Your task to perform on an android device: add a label to a message in the gmail app Image 0: 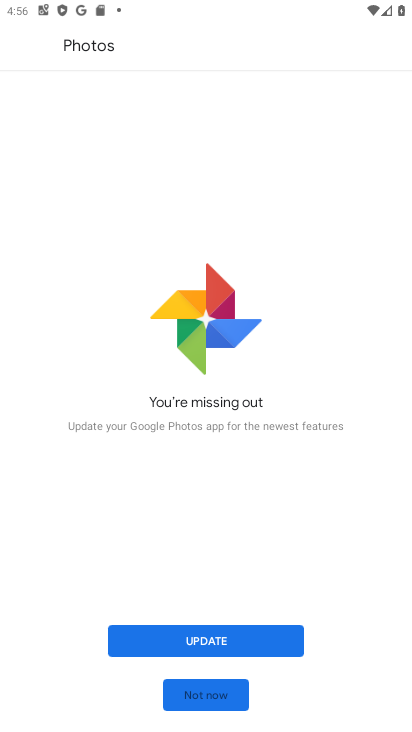
Step 0: press home button
Your task to perform on an android device: add a label to a message in the gmail app Image 1: 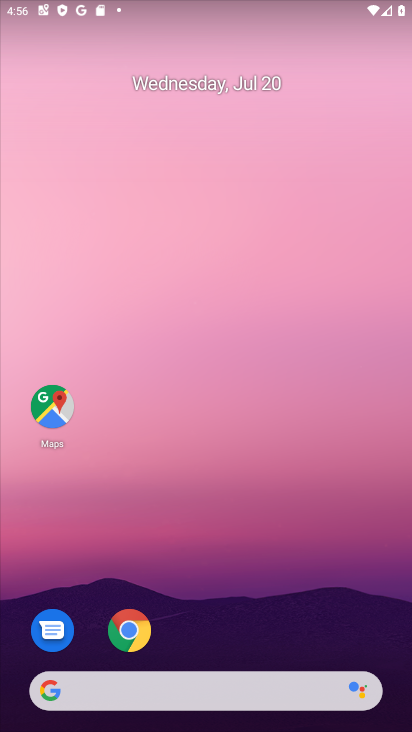
Step 1: drag from (206, 697) to (300, 231)
Your task to perform on an android device: add a label to a message in the gmail app Image 2: 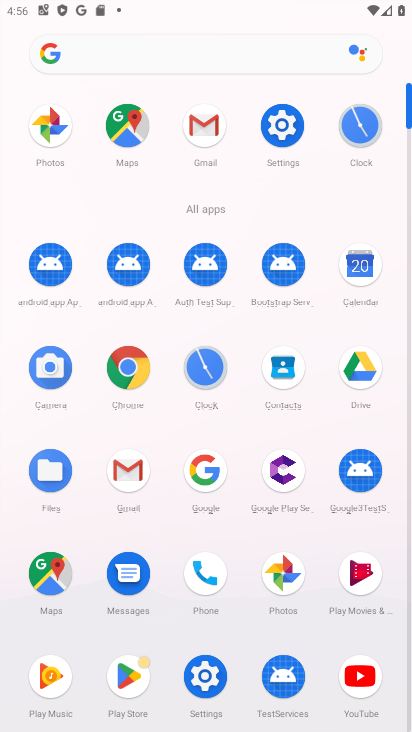
Step 2: click (201, 123)
Your task to perform on an android device: add a label to a message in the gmail app Image 3: 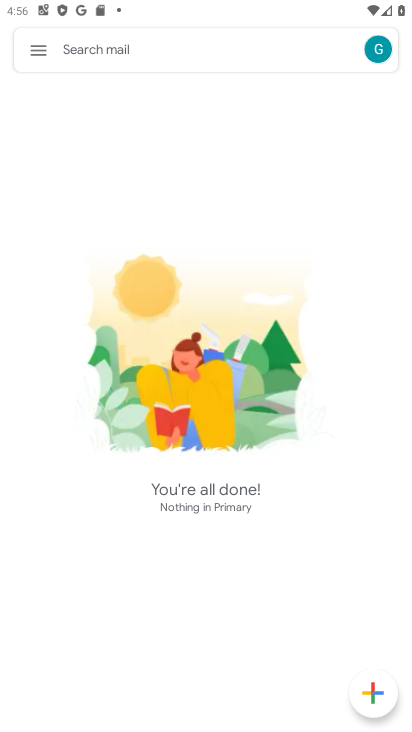
Step 3: click (37, 48)
Your task to perform on an android device: add a label to a message in the gmail app Image 4: 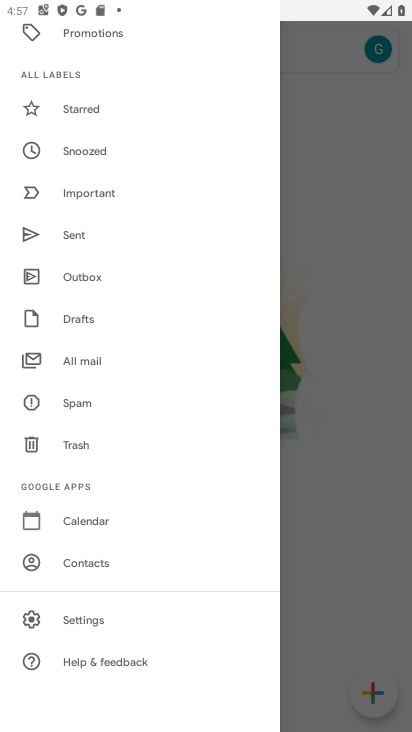
Step 4: click (86, 357)
Your task to perform on an android device: add a label to a message in the gmail app Image 5: 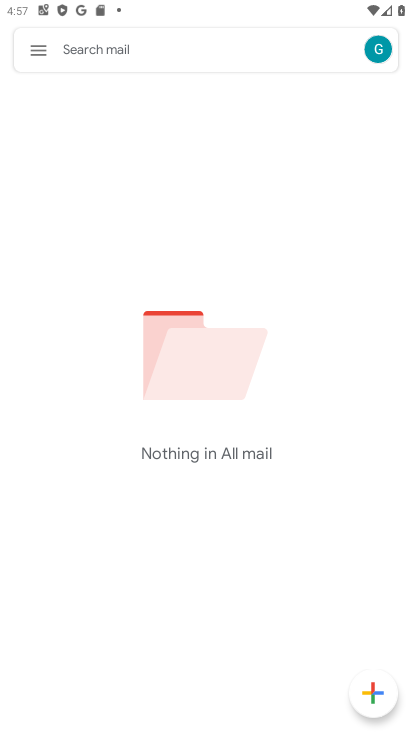
Step 5: click (31, 50)
Your task to perform on an android device: add a label to a message in the gmail app Image 6: 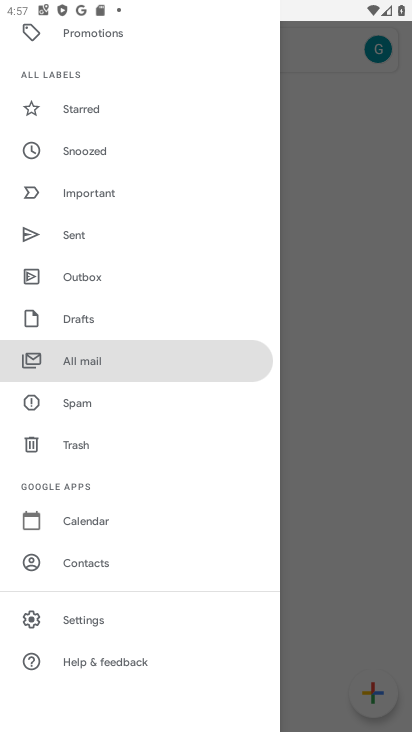
Step 6: click (105, 405)
Your task to perform on an android device: add a label to a message in the gmail app Image 7: 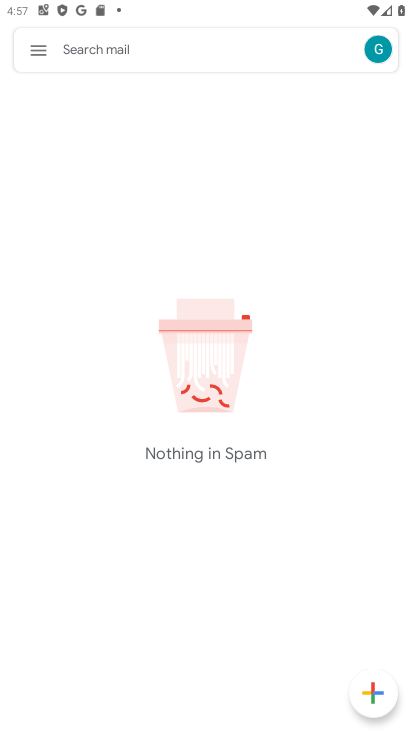
Step 7: click (37, 49)
Your task to perform on an android device: add a label to a message in the gmail app Image 8: 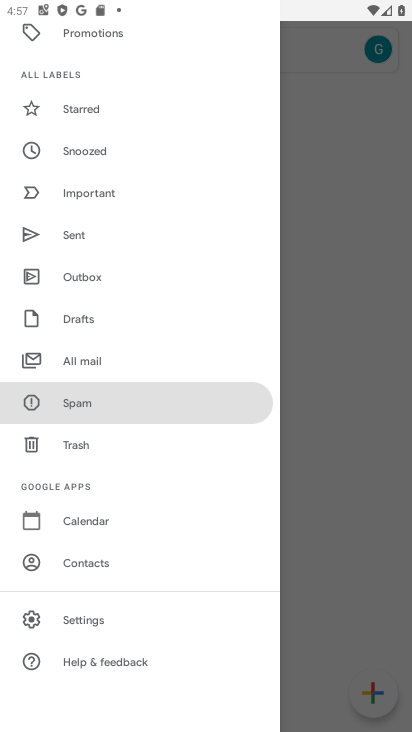
Step 8: click (91, 157)
Your task to perform on an android device: add a label to a message in the gmail app Image 9: 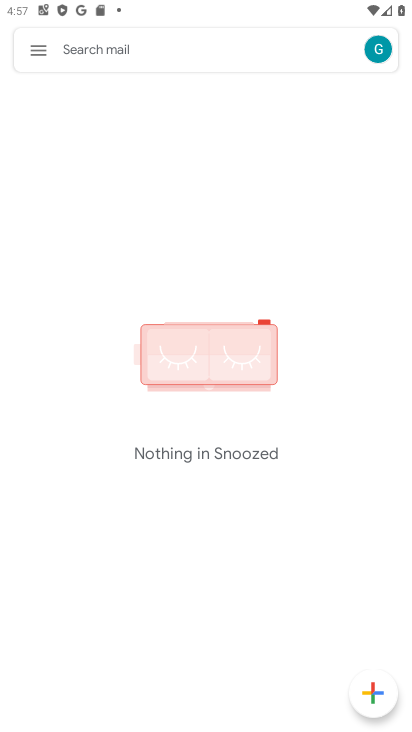
Step 9: click (39, 53)
Your task to perform on an android device: add a label to a message in the gmail app Image 10: 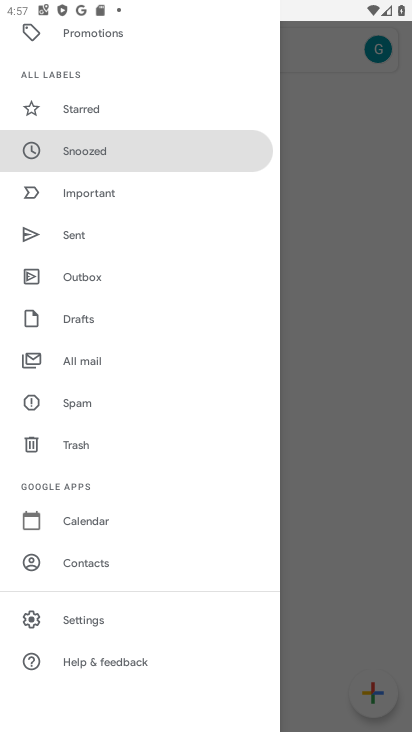
Step 10: click (90, 194)
Your task to perform on an android device: add a label to a message in the gmail app Image 11: 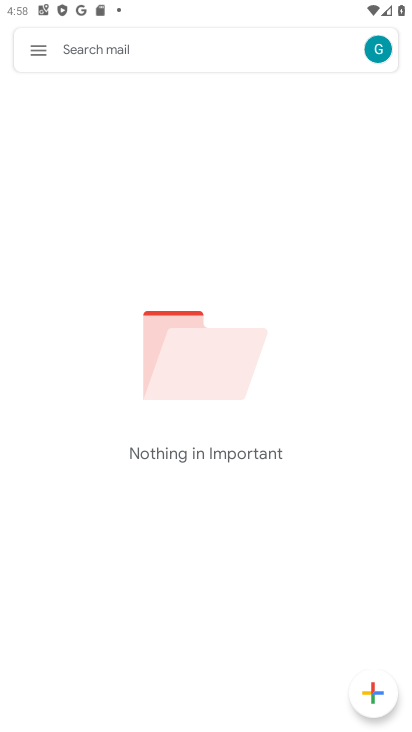
Step 11: task complete